Your task to perform on an android device: Open the stopwatch Image 0: 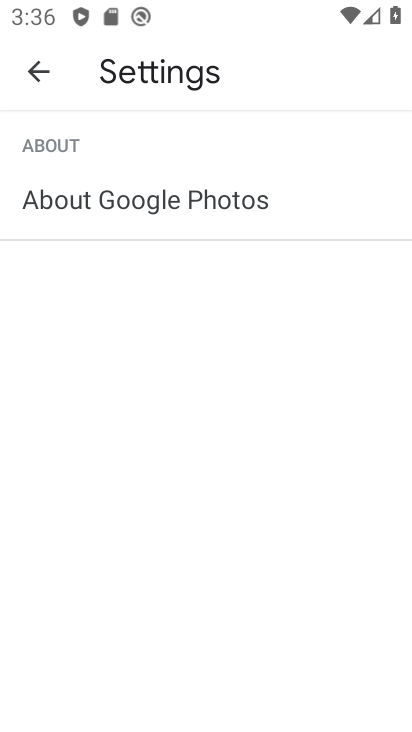
Step 0: press home button
Your task to perform on an android device: Open the stopwatch Image 1: 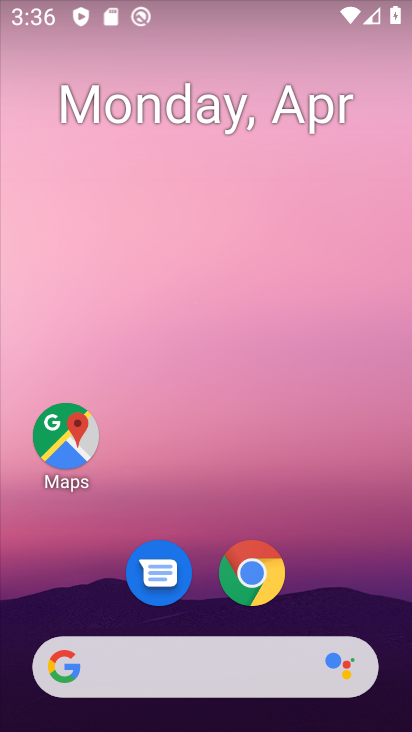
Step 1: drag from (338, 596) to (344, 127)
Your task to perform on an android device: Open the stopwatch Image 2: 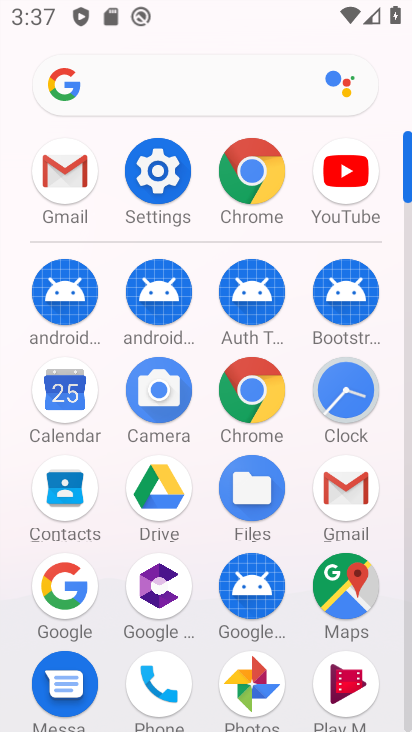
Step 2: click (362, 398)
Your task to perform on an android device: Open the stopwatch Image 3: 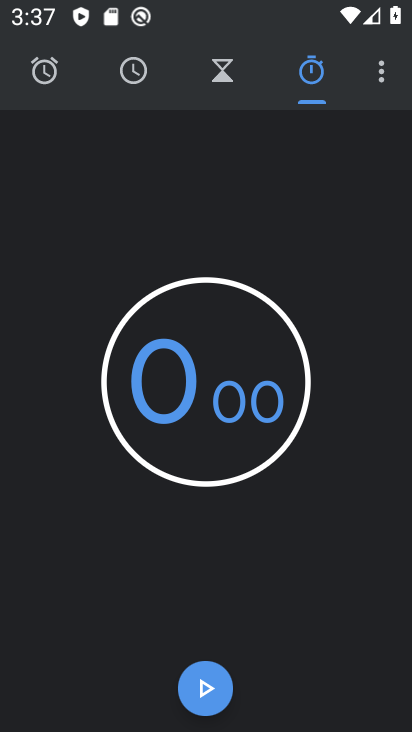
Step 3: task complete